Your task to perform on an android device: turn off priority inbox in the gmail app Image 0: 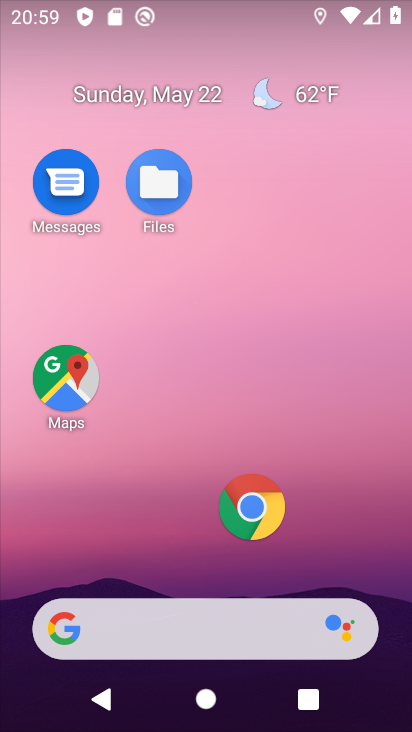
Step 0: drag from (203, 579) to (84, 127)
Your task to perform on an android device: turn off priority inbox in the gmail app Image 1: 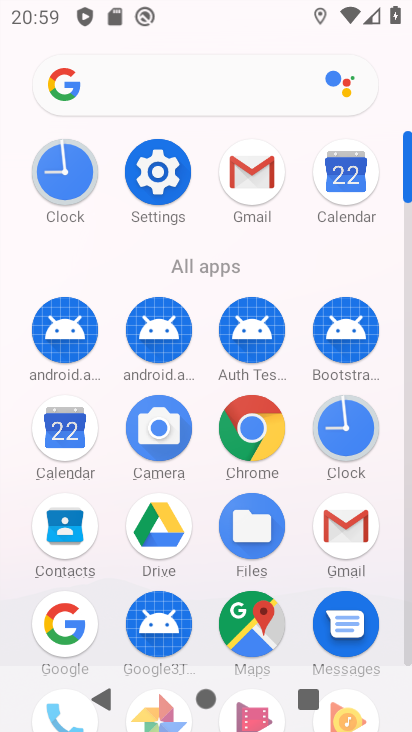
Step 1: click (356, 523)
Your task to perform on an android device: turn off priority inbox in the gmail app Image 2: 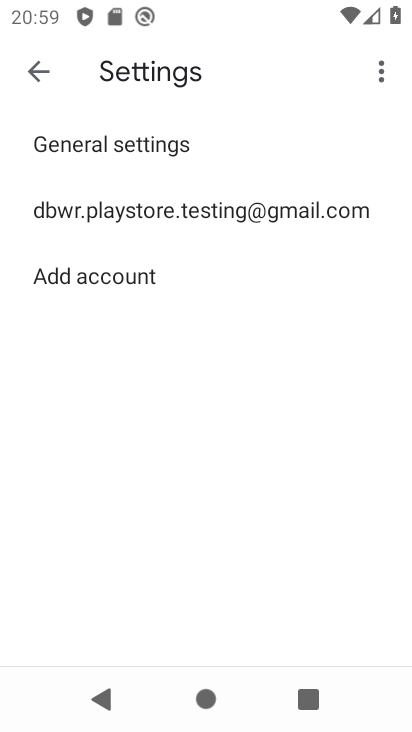
Step 2: click (115, 226)
Your task to perform on an android device: turn off priority inbox in the gmail app Image 3: 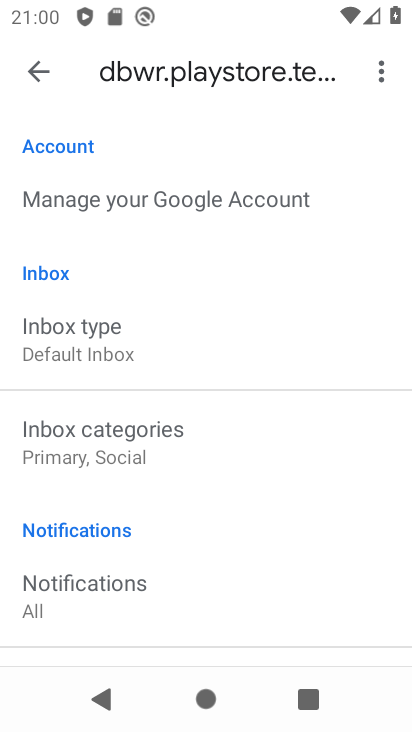
Step 3: click (103, 360)
Your task to perform on an android device: turn off priority inbox in the gmail app Image 4: 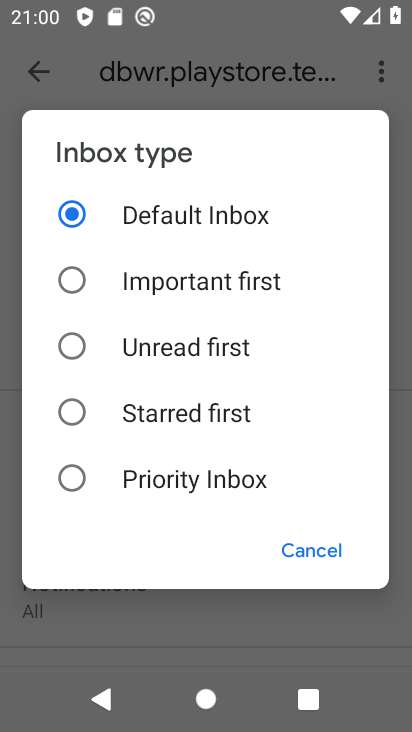
Step 4: task complete